Your task to perform on an android device: search for starred emails in the gmail app Image 0: 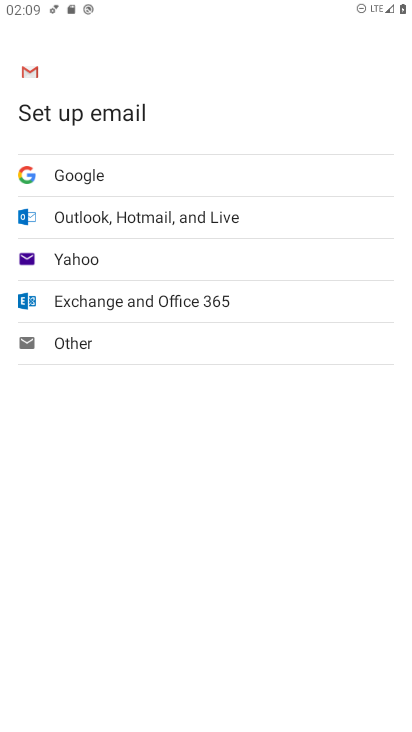
Step 0: press home button
Your task to perform on an android device: search for starred emails in the gmail app Image 1: 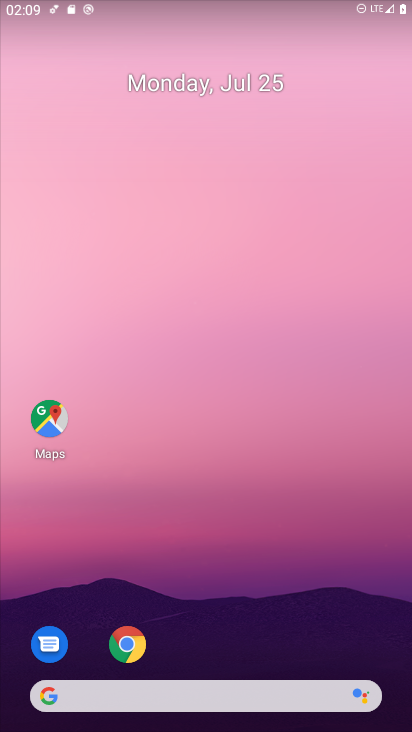
Step 1: drag from (216, 725) to (196, 218)
Your task to perform on an android device: search for starred emails in the gmail app Image 2: 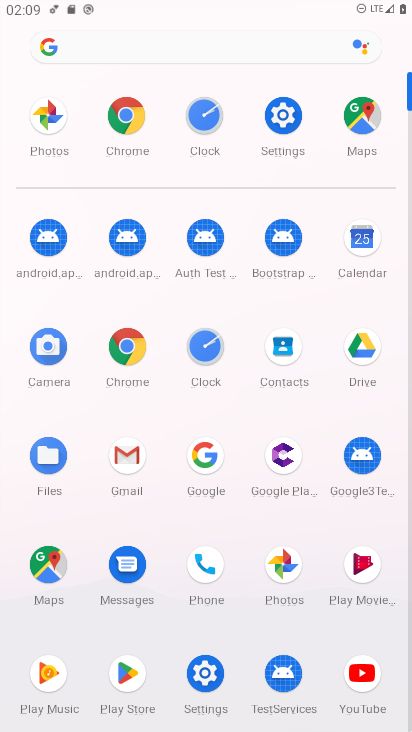
Step 2: click (126, 452)
Your task to perform on an android device: search for starred emails in the gmail app Image 3: 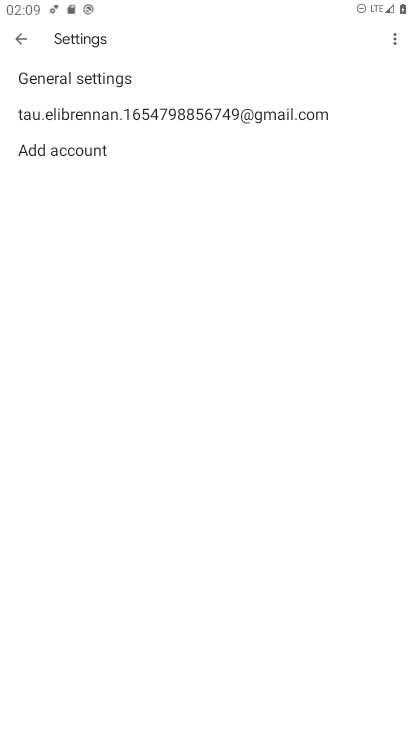
Step 3: click (20, 38)
Your task to perform on an android device: search for starred emails in the gmail app Image 4: 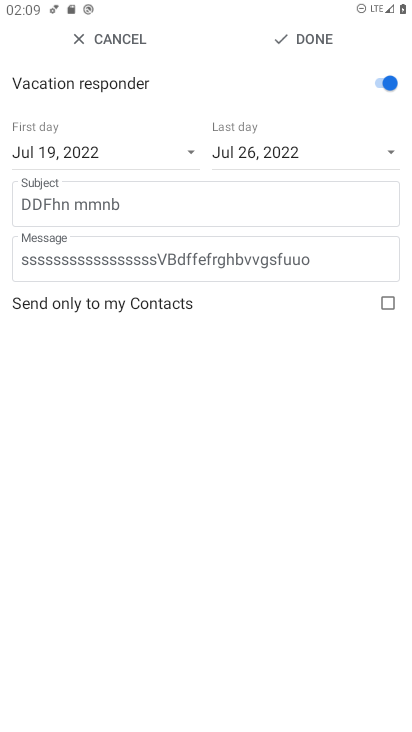
Step 4: click (300, 35)
Your task to perform on an android device: search for starred emails in the gmail app Image 5: 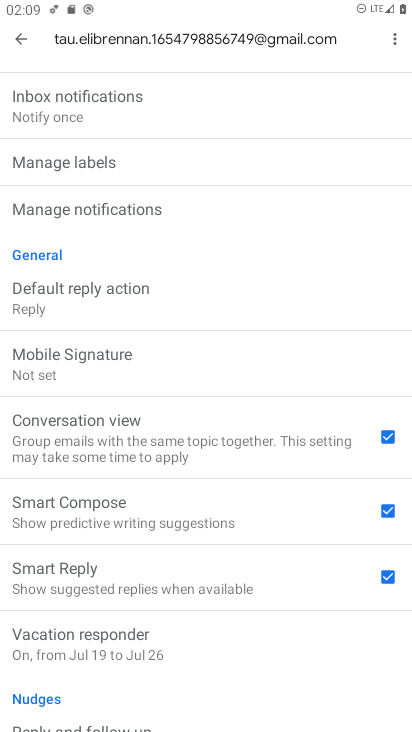
Step 5: click (18, 34)
Your task to perform on an android device: search for starred emails in the gmail app Image 6: 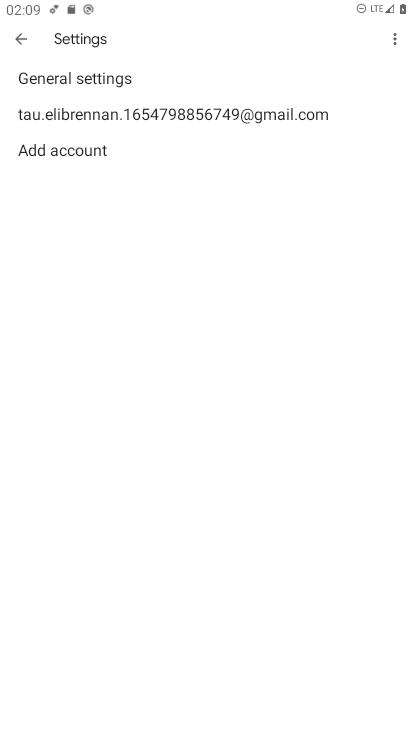
Step 6: click (18, 35)
Your task to perform on an android device: search for starred emails in the gmail app Image 7: 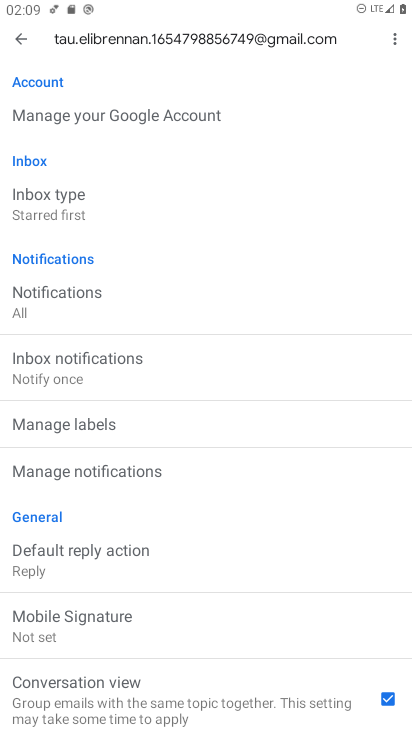
Step 7: click (25, 36)
Your task to perform on an android device: search for starred emails in the gmail app Image 8: 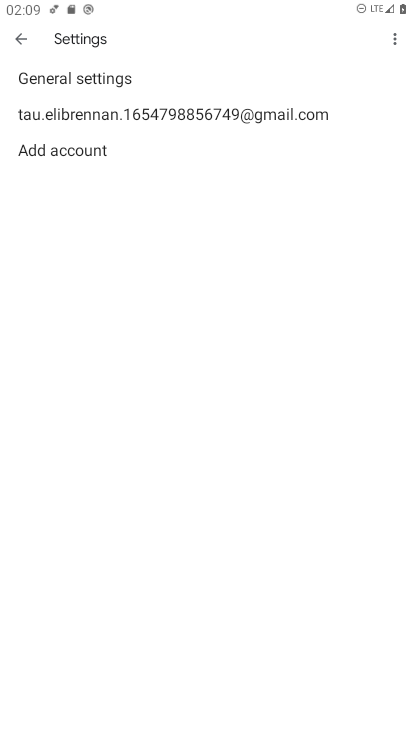
Step 8: click (25, 36)
Your task to perform on an android device: search for starred emails in the gmail app Image 9: 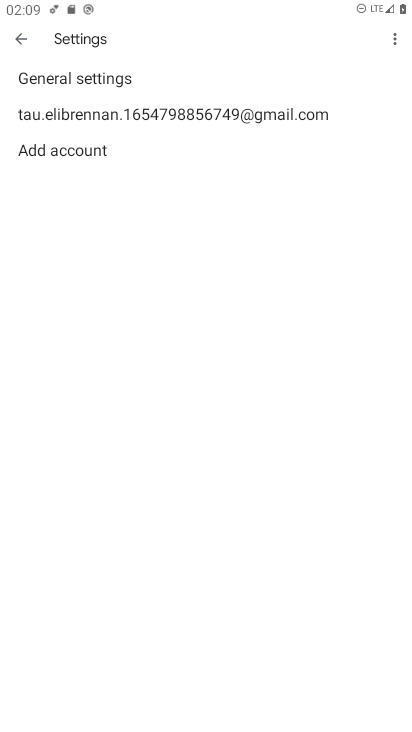
Step 9: click (25, 36)
Your task to perform on an android device: search for starred emails in the gmail app Image 10: 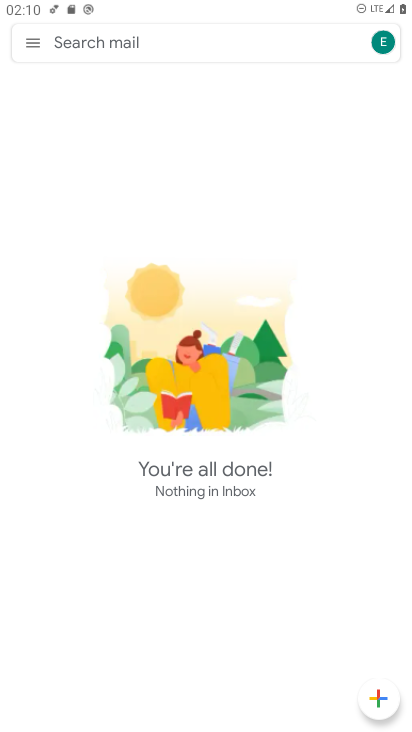
Step 10: click (25, 36)
Your task to perform on an android device: search for starred emails in the gmail app Image 11: 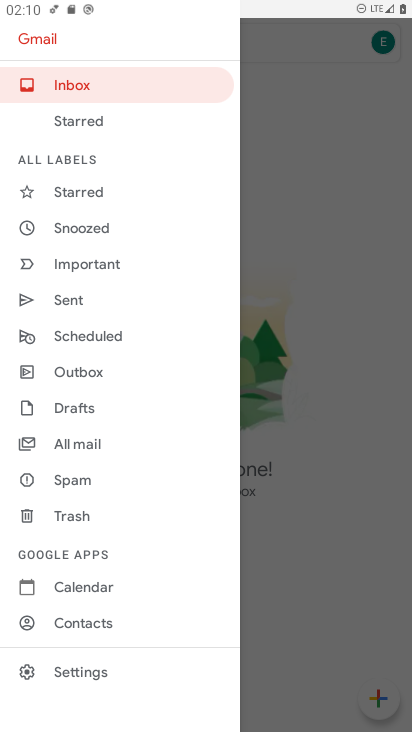
Step 11: click (75, 190)
Your task to perform on an android device: search for starred emails in the gmail app Image 12: 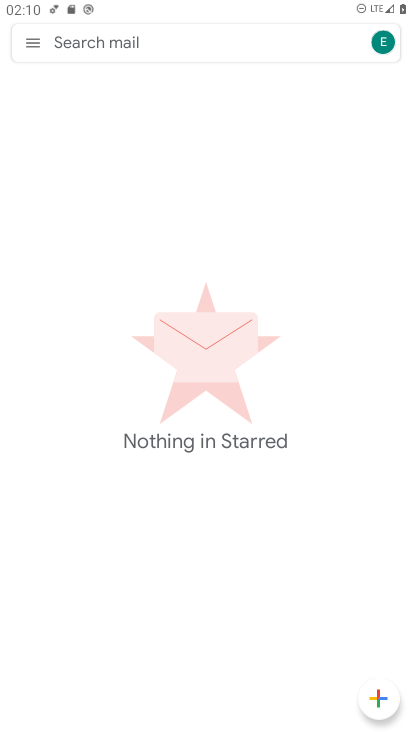
Step 12: task complete